Your task to perform on an android device: empty trash in the gmail app Image 0: 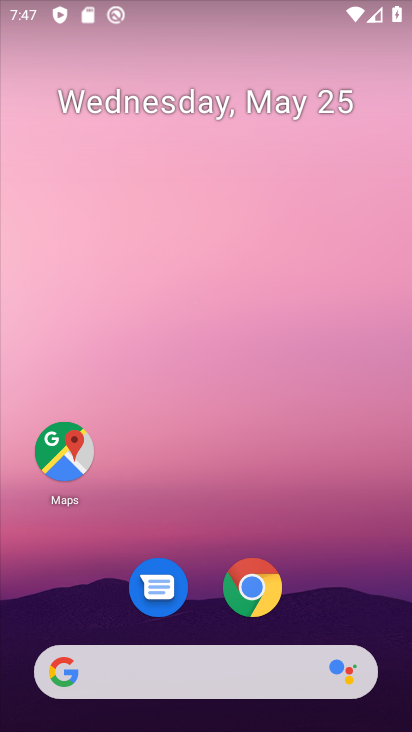
Step 0: drag from (322, 535) to (324, 369)
Your task to perform on an android device: empty trash in the gmail app Image 1: 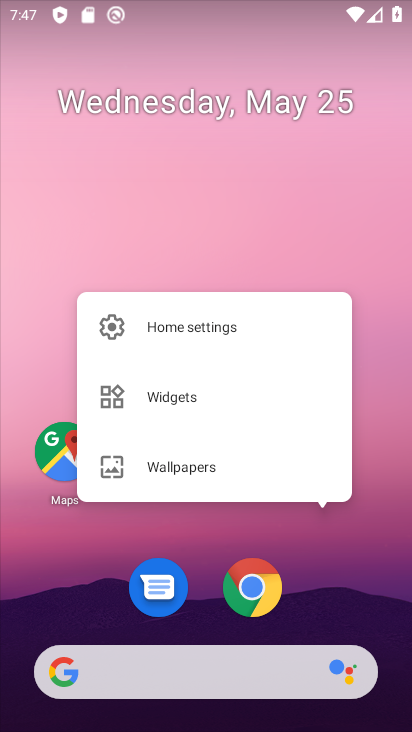
Step 1: click (366, 573)
Your task to perform on an android device: empty trash in the gmail app Image 2: 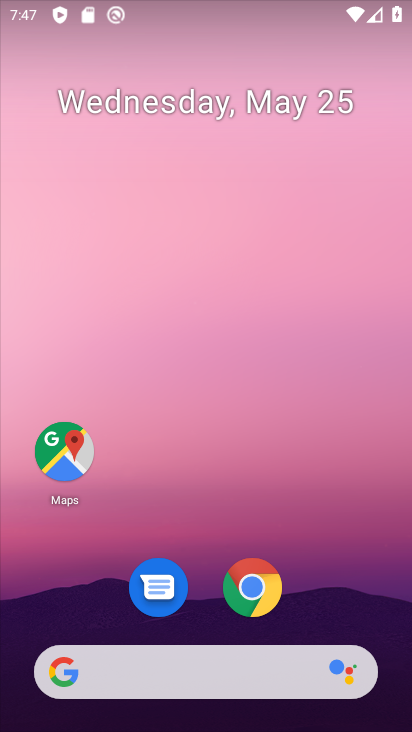
Step 2: drag from (366, 573) to (237, 12)
Your task to perform on an android device: empty trash in the gmail app Image 3: 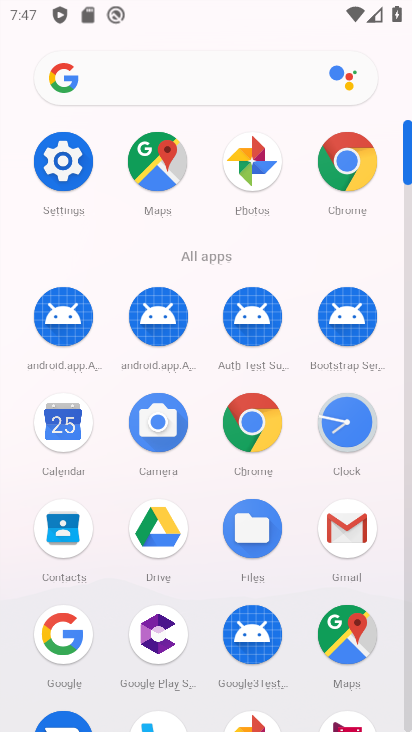
Step 3: click (349, 529)
Your task to perform on an android device: empty trash in the gmail app Image 4: 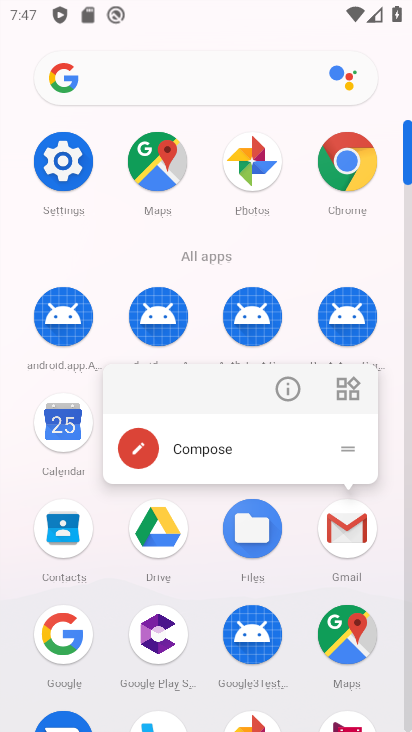
Step 4: click (349, 529)
Your task to perform on an android device: empty trash in the gmail app Image 5: 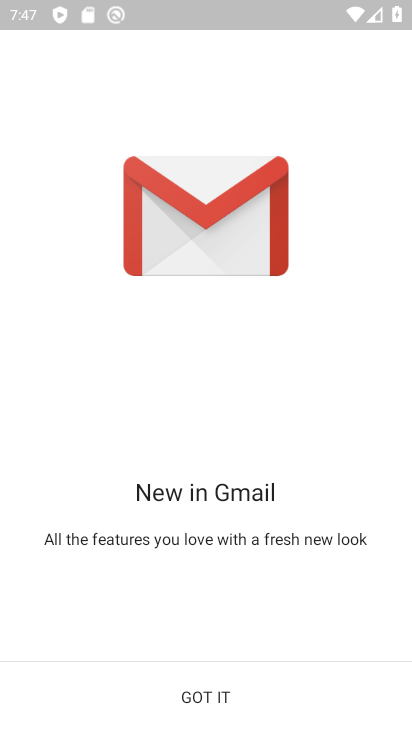
Step 5: click (260, 709)
Your task to perform on an android device: empty trash in the gmail app Image 6: 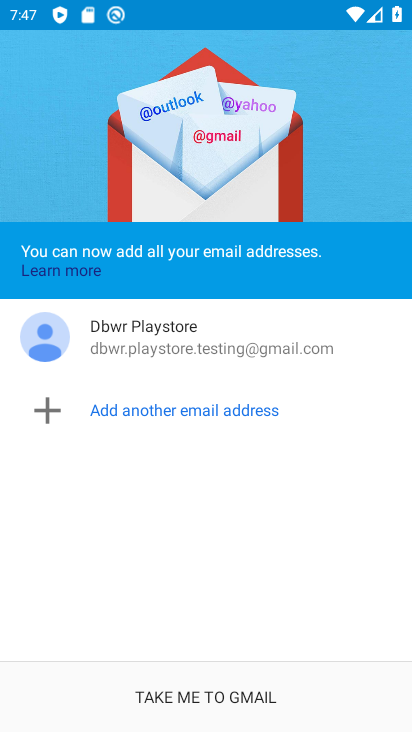
Step 6: click (235, 676)
Your task to perform on an android device: empty trash in the gmail app Image 7: 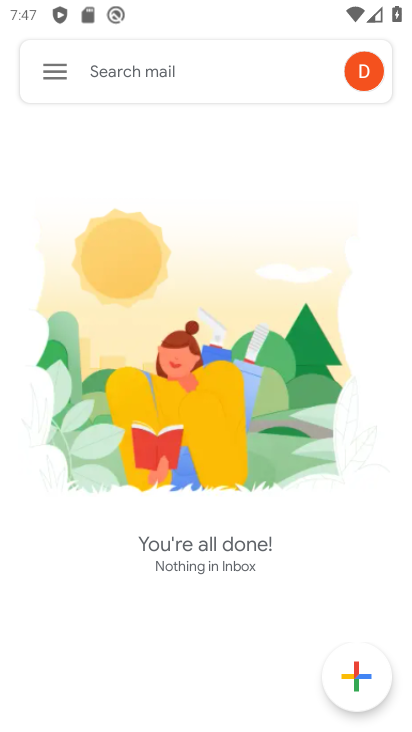
Step 7: click (35, 56)
Your task to perform on an android device: empty trash in the gmail app Image 8: 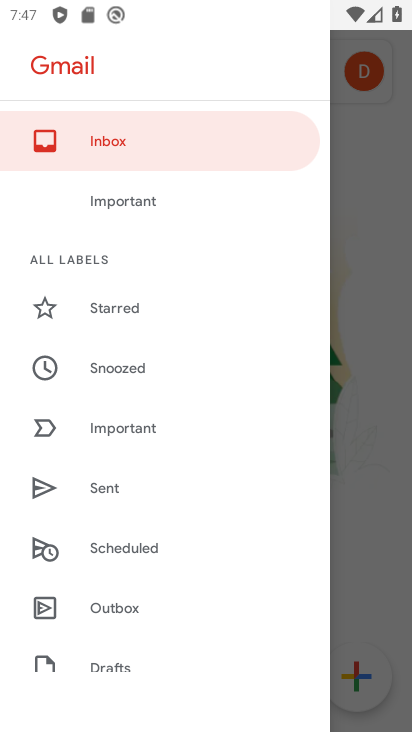
Step 8: drag from (269, 543) to (197, 284)
Your task to perform on an android device: empty trash in the gmail app Image 9: 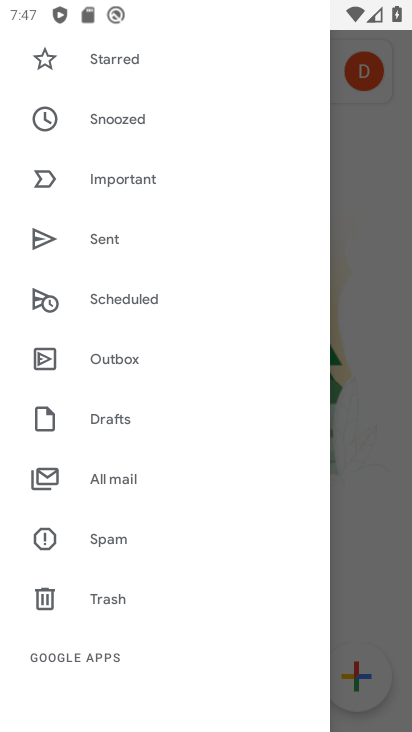
Step 9: click (55, 598)
Your task to perform on an android device: empty trash in the gmail app Image 10: 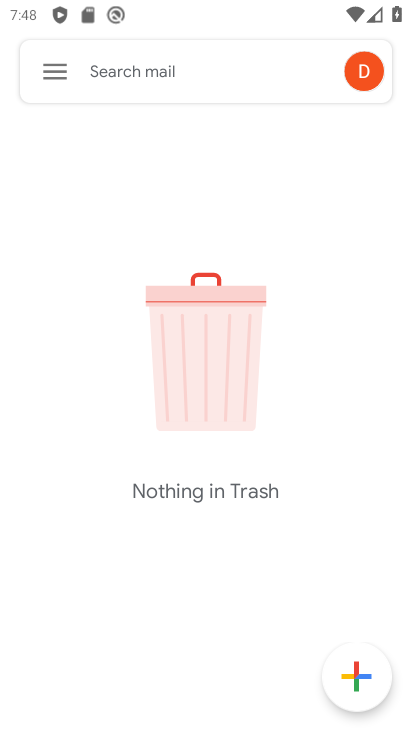
Step 10: task complete